Your task to perform on an android device: Open Google Chrome Image 0: 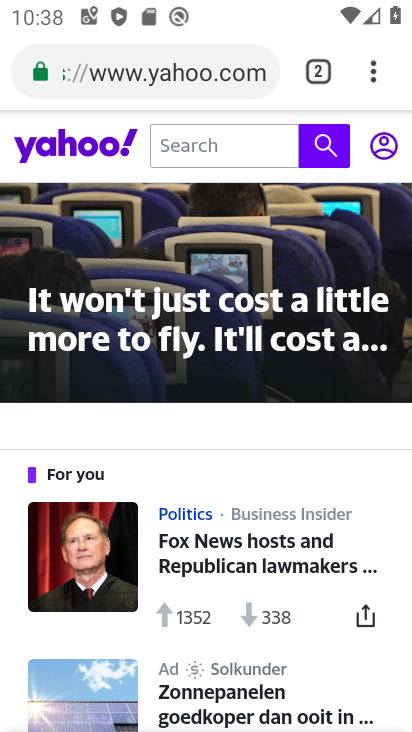
Step 0: press home button
Your task to perform on an android device: Open Google Chrome Image 1: 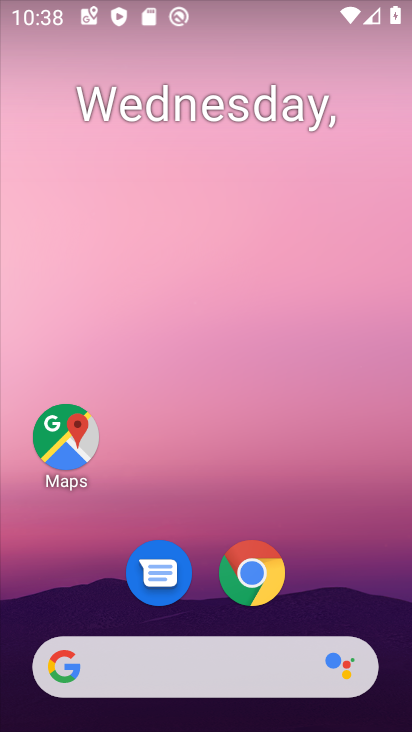
Step 1: click (248, 568)
Your task to perform on an android device: Open Google Chrome Image 2: 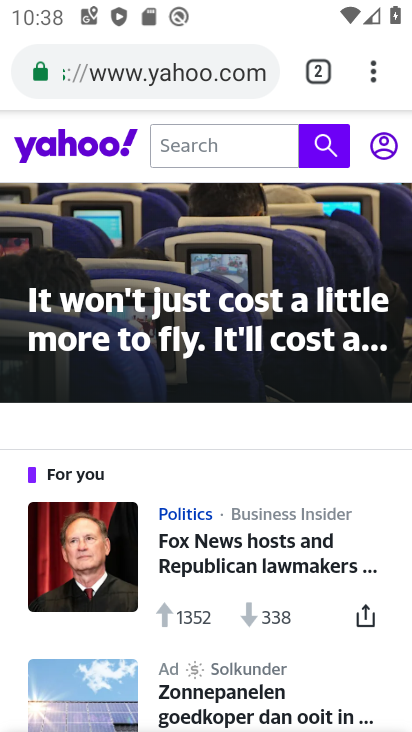
Step 2: task complete